Your task to perform on an android device: turn on showing notifications on the lock screen Image 0: 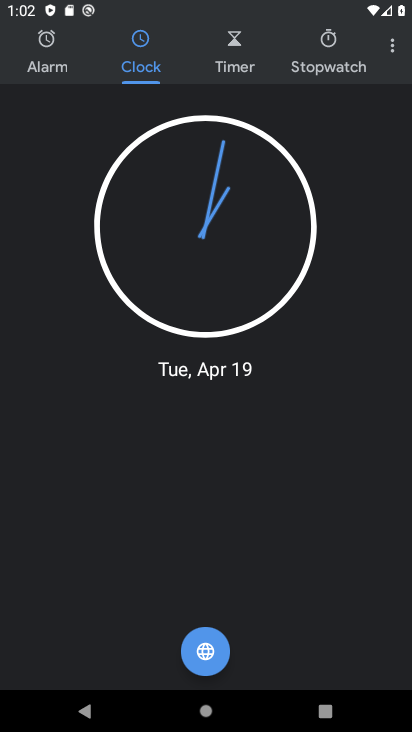
Step 0: press home button
Your task to perform on an android device: turn on showing notifications on the lock screen Image 1: 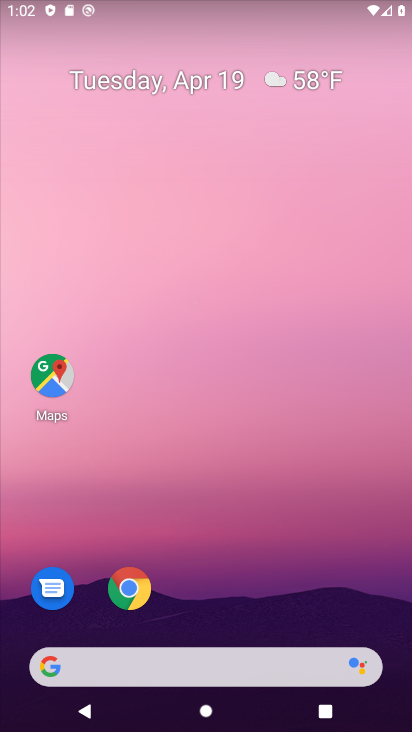
Step 1: drag from (227, 603) to (219, 212)
Your task to perform on an android device: turn on showing notifications on the lock screen Image 2: 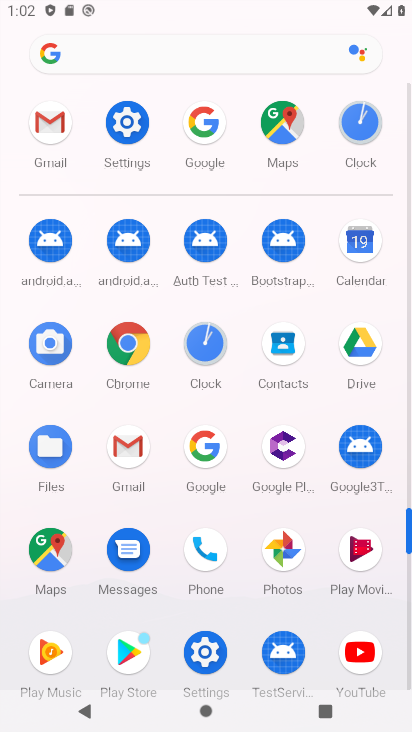
Step 2: click (118, 118)
Your task to perform on an android device: turn on showing notifications on the lock screen Image 3: 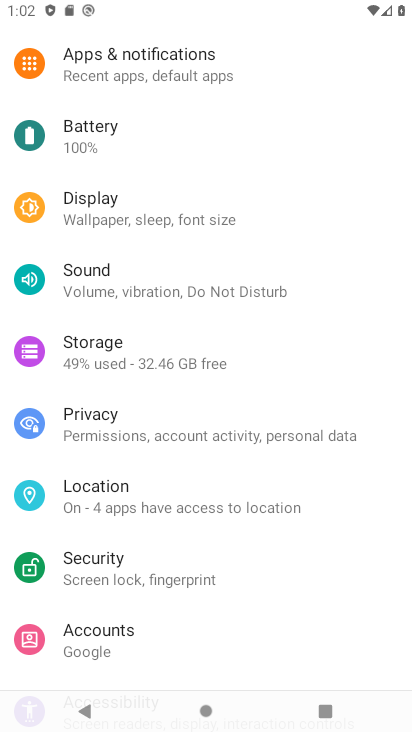
Step 3: click (186, 71)
Your task to perform on an android device: turn on showing notifications on the lock screen Image 4: 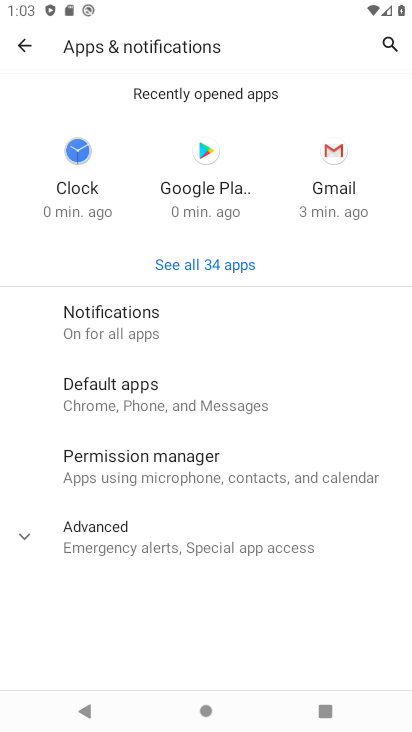
Step 4: click (148, 324)
Your task to perform on an android device: turn on showing notifications on the lock screen Image 5: 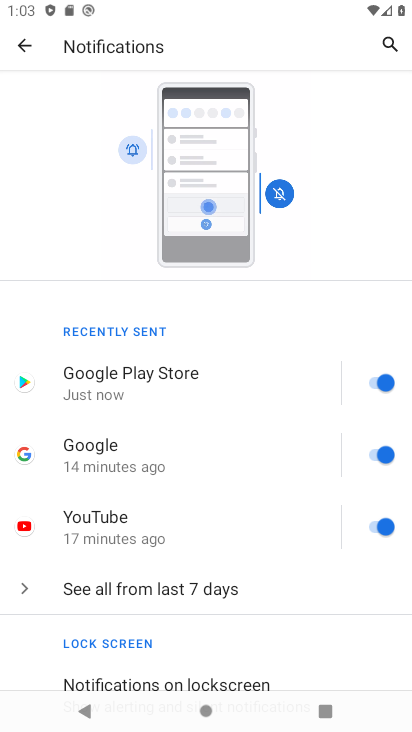
Step 5: drag from (206, 644) to (213, 382)
Your task to perform on an android device: turn on showing notifications on the lock screen Image 6: 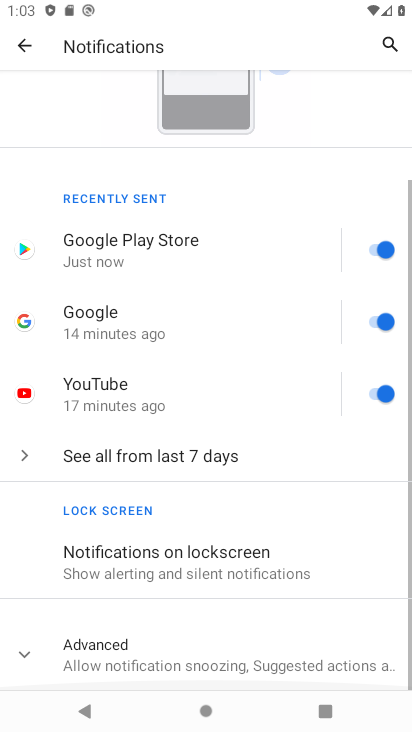
Step 6: click (210, 574)
Your task to perform on an android device: turn on showing notifications on the lock screen Image 7: 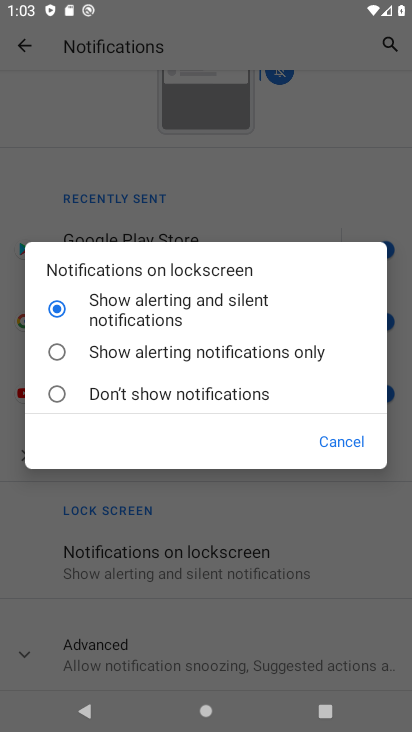
Step 7: task complete